Your task to perform on an android device: check google app version Image 0: 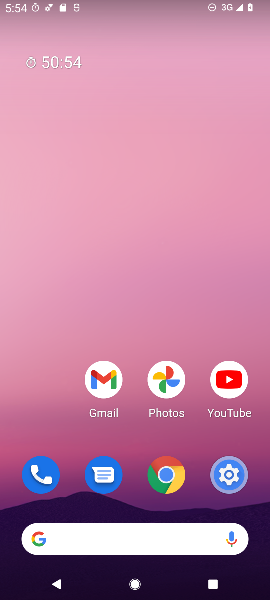
Step 0: press home button
Your task to perform on an android device: check google app version Image 1: 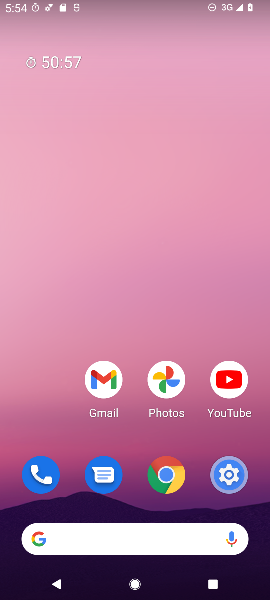
Step 1: drag from (67, 439) to (66, 198)
Your task to perform on an android device: check google app version Image 2: 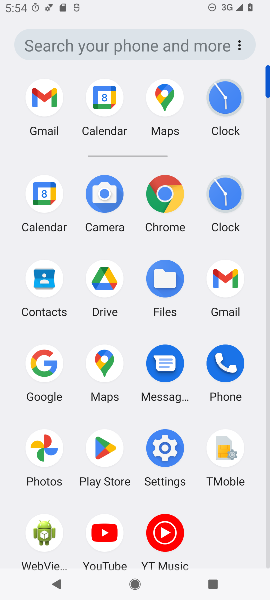
Step 2: click (48, 372)
Your task to perform on an android device: check google app version Image 3: 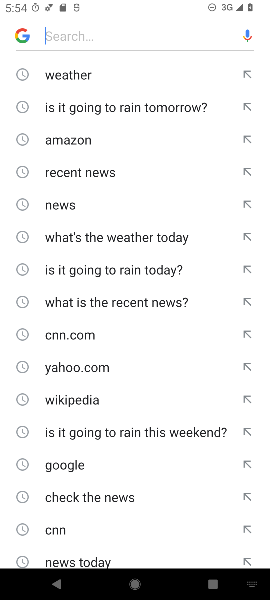
Step 3: press back button
Your task to perform on an android device: check google app version Image 4: 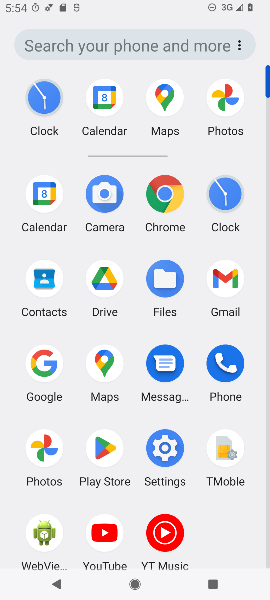
Step 4: click (50, 373)
Your task to perform on an android device: check google app version Image 5: 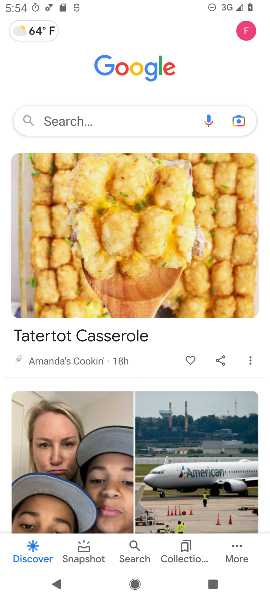
Step 5: click (238, 552)
Your task to perform on an android device: check google app version Image 6: 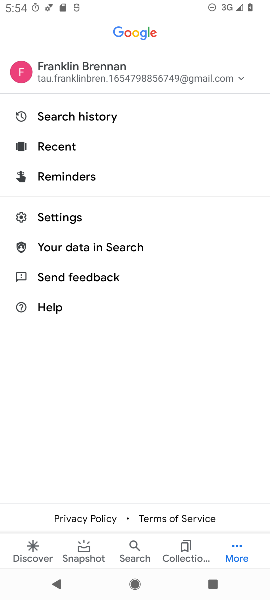
Step 6: click (74, 213)
Your task to perform on an android device: check google app version Image 7: 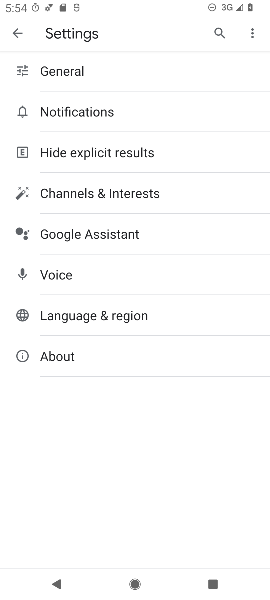
Step 7: click (72, 357)
Your task to perform on an android device: check google app version Image 8: 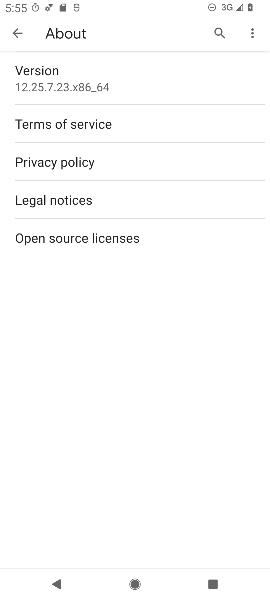
Step 8: task complete